Your task to perform on an android device: Open settings Image 0: 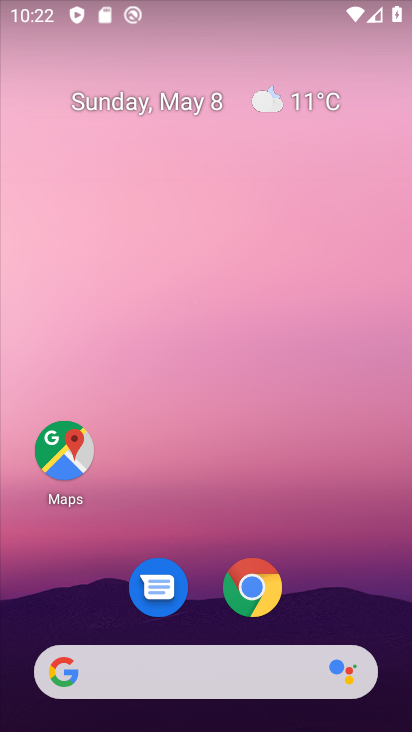
Step 0: drag from (228, 663) to (205, 155)
Your task to perform on an android device: Open settings Image 1: 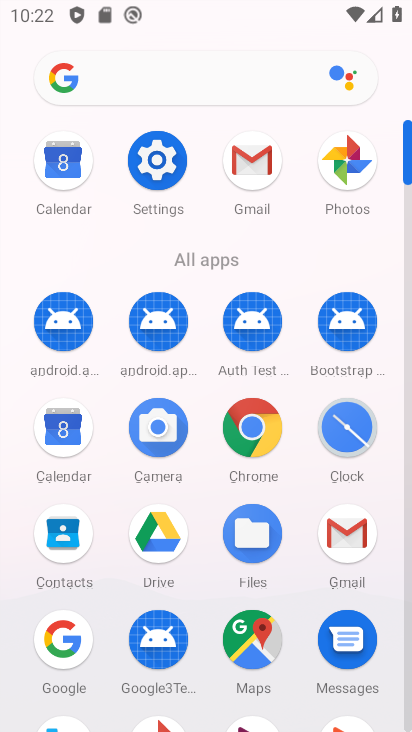
Step 1: click (141, 173)
Your task to perform on an android device: Open settings Image 2: 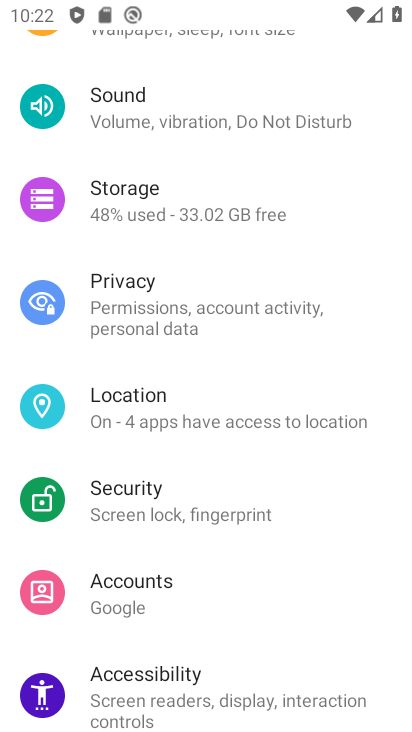
Step 2: task complete